Your task to perform on an android device: Open battery settings Image 0: 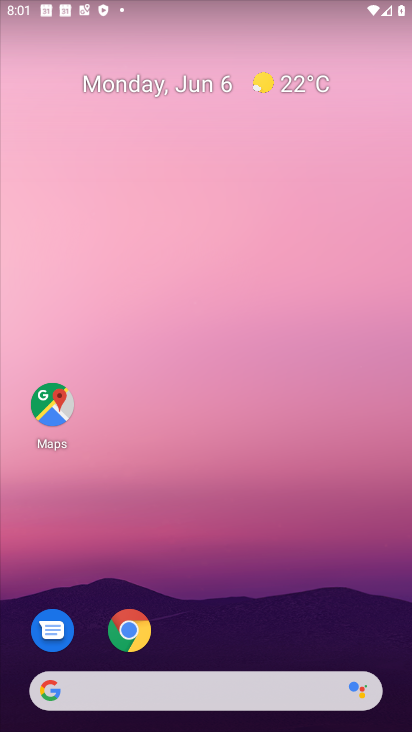
Step 0: drag from (121, 731) to (77, 101)
Your task to perform on an android device: Open battery settings Image 1: 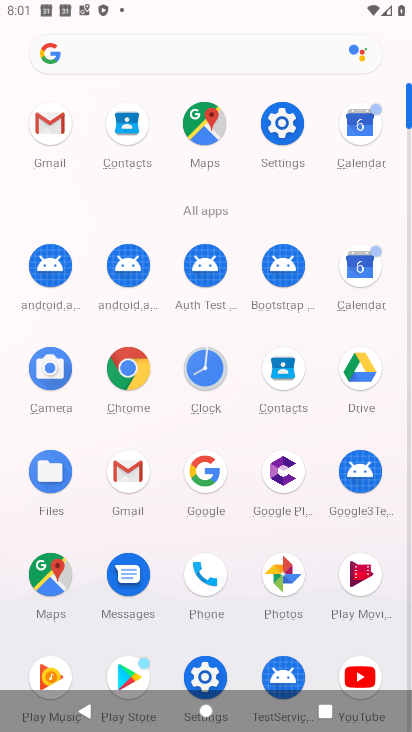
Step 1: click (278, 132)
Your task to perform on an android device: Open battery settings Image 2: 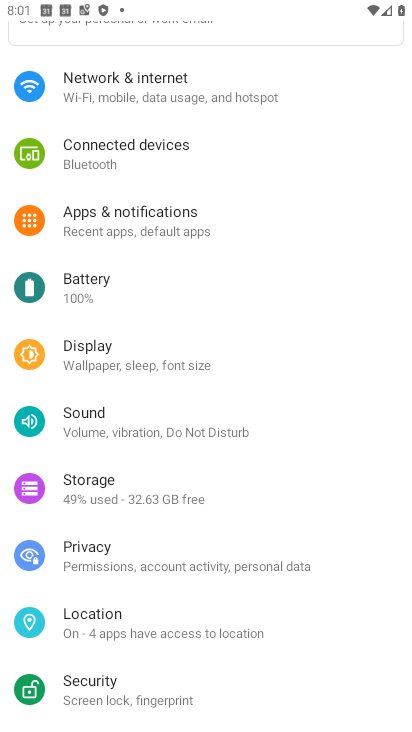
Step 2: click (89, 294)
Your task to perform on an android device: Open battery settings Image 3: 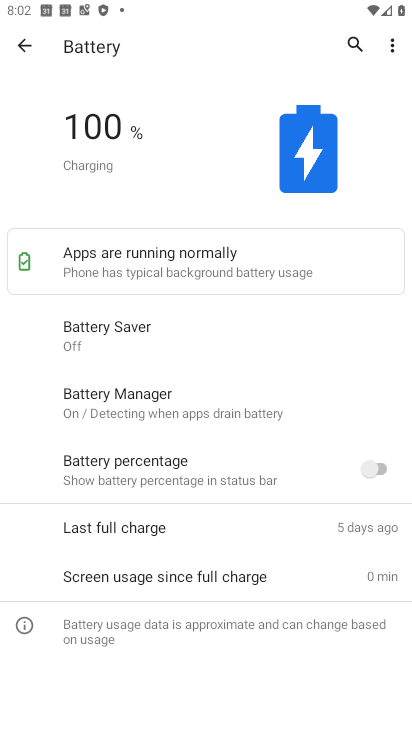
Step 3: task complete